Your task to perform on an android device: Search for vegetarian restaurants on Maps Image 0: 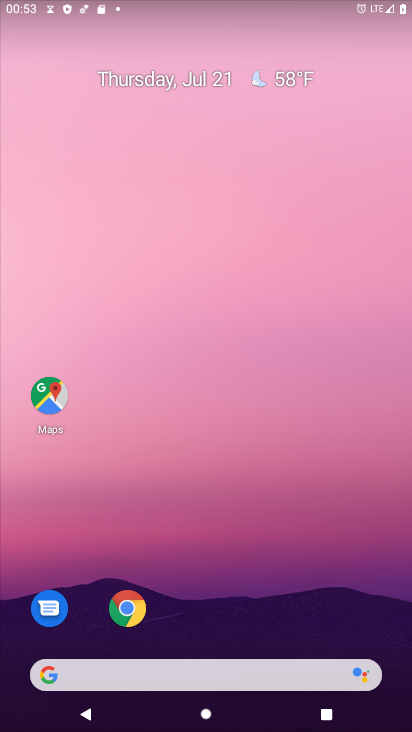
Step 0: click (48, 389)
Your task to perform on an android device: Search for vegetarian restaurants on Maps Image 1: 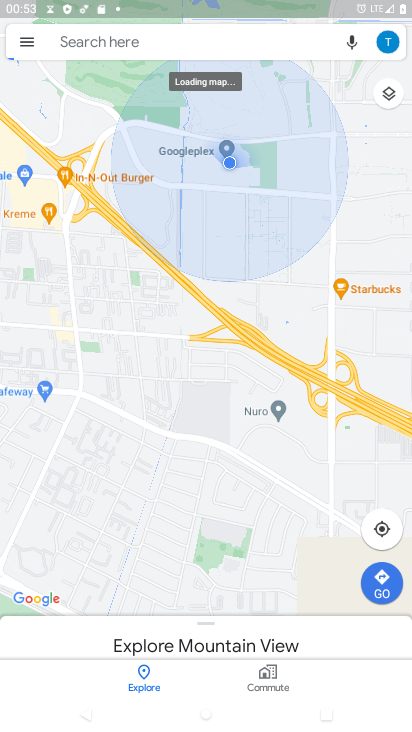
Step 1: click (92, 35)
Your task to perform on an android device: Search for vegetarian restaurants on Maps Image 2: 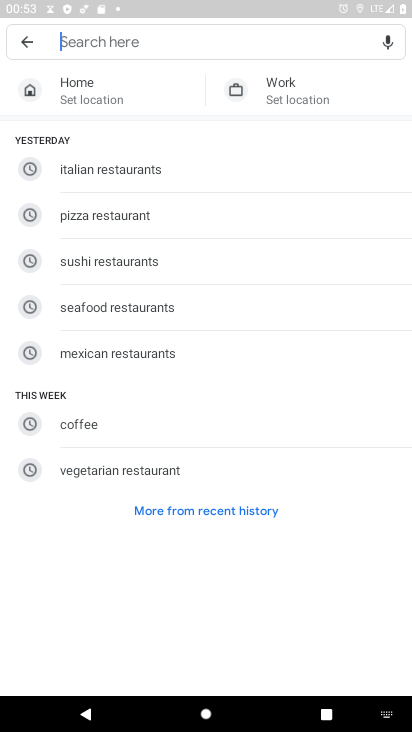
Step 2: click (123, 470)
Your task to perform on an android device: Search for vegetarian restaurants on Maps Image 3: 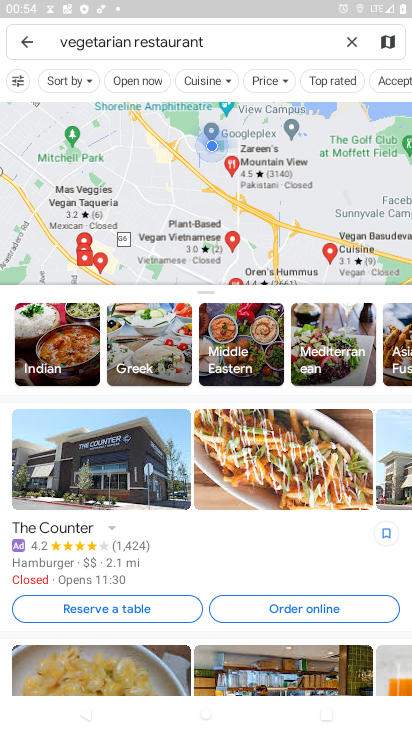
Step 3: task complete